Your task to perform on an android device: add a contact Image 0: 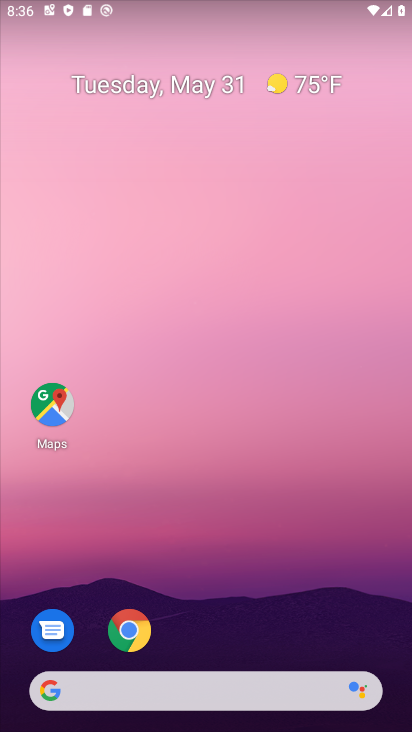
Step 0: drag from (249, 577) to (304, 167)
Your task to perform on an android device: add a contact Image 1: 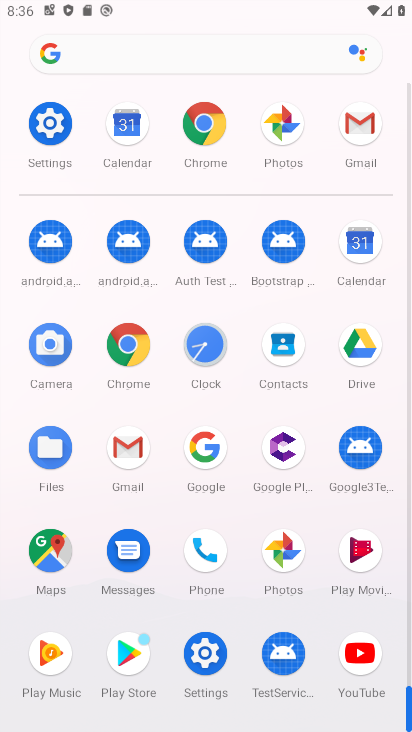
Step 1: click (297, 353)
Your task to perform on an android device: add a contact Image 2: 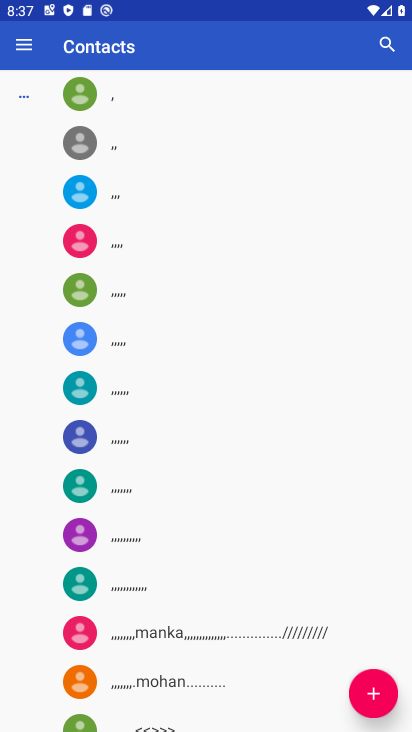
Step 2: click (366, 701)
Your task to perform on an android device: add a contact Image 3: 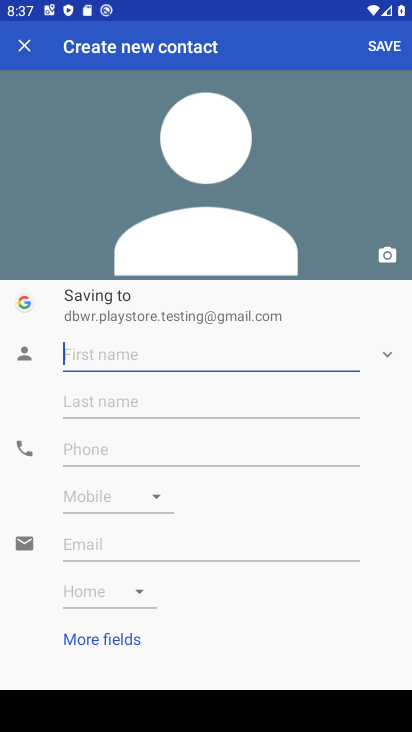
Step 3: type ",mjvcjkm"
Your task to perform on an android device: add a contact Image 4: 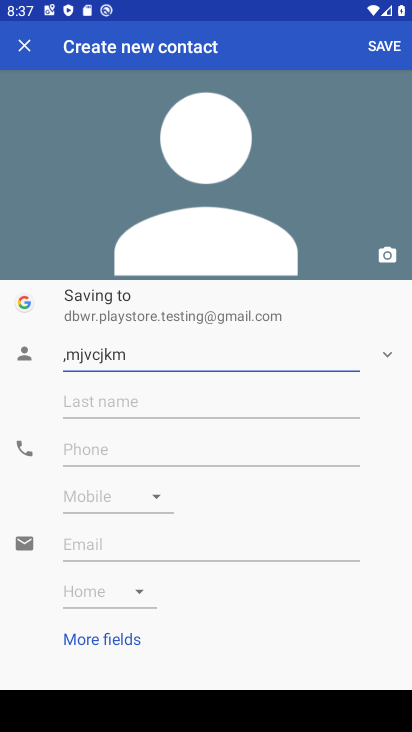
Step 4: click (187, 446)
Your task to perform on an android device: add a contact Image 5: 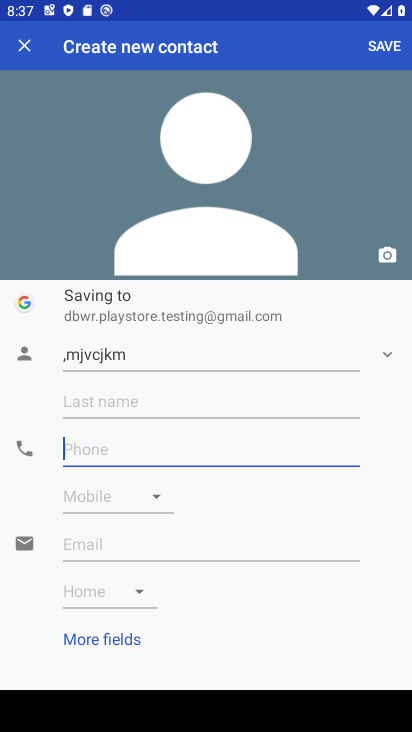
Step 5: type "u76569"
Your task to perform on an android device: add a contact Image 6: 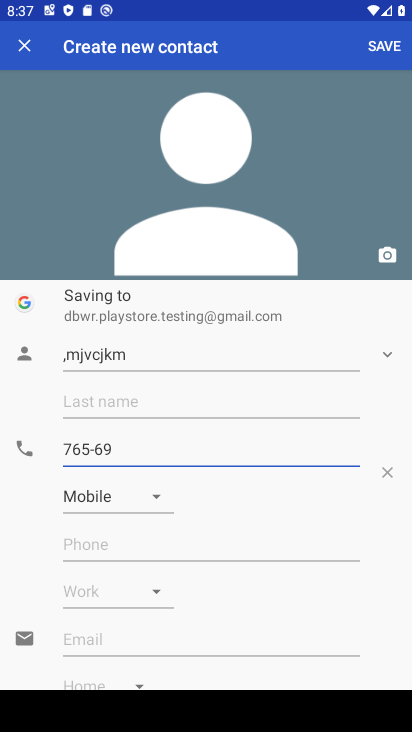
Step 6: click (390, 43)
Your task to perform on an android device: add a contact Image 7: 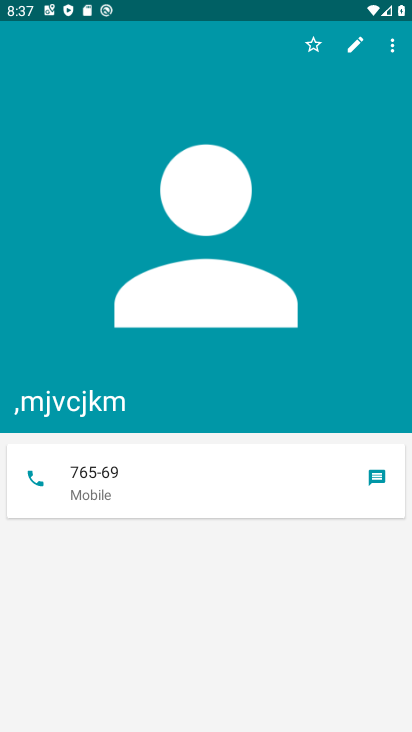
Step 7: task complete